Your task to perform on an android device: Show me popular videos on Youtube Image 0: 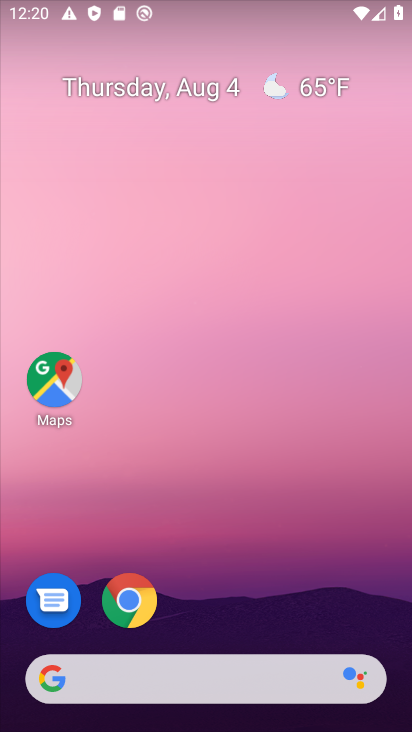
Step 0: drag from (219, 649) to (285, 28)
Your task to perform on an android device: Show me popular videos on Youtube Image 1: 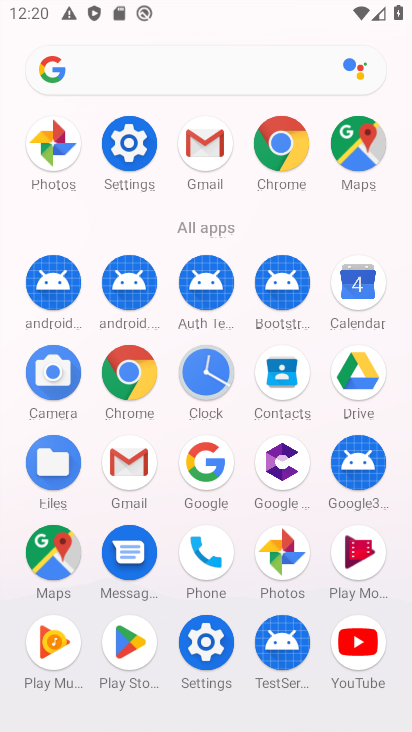
Step 1: click (372, 632)
Your task to perform on an android device: Show me popular videos on Youtube Image 2: 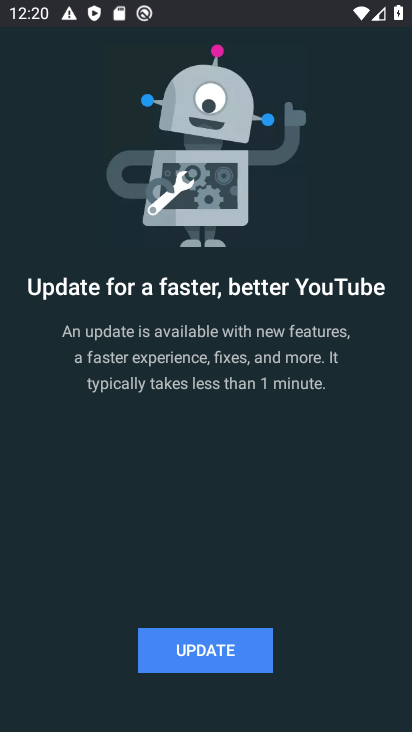
Step 2: click (185, 660)
Your task to perform on an android device: Show me popular videos on Youtube Image 3: 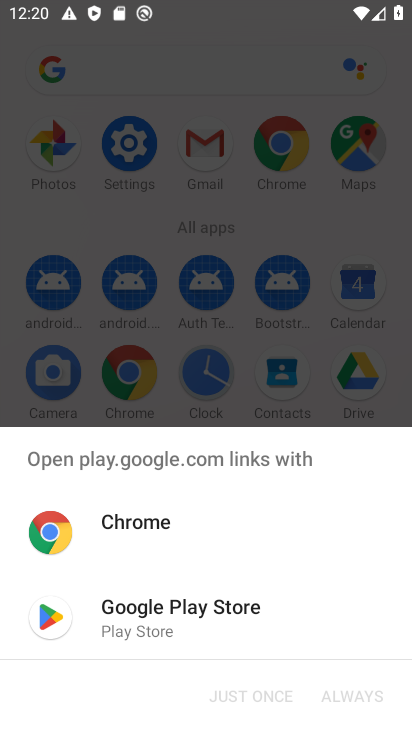
Step 3: click (186, 610)
Your task to perform on an android device: Show me popular videos on Youtube Image 4: 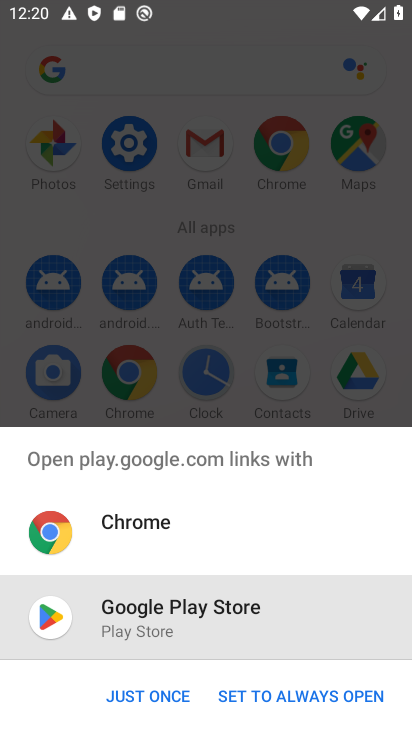
Step 4: click (272, 610)
Your task to perform on an android device: Show me popular videos on Youtube Image 5: 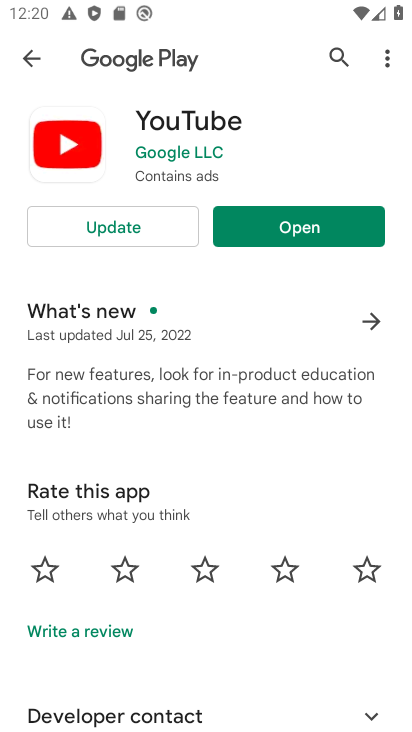
Step 5: click (151, 229)
Your task to perform on an android device: Show me popular videos on Youtube Image 6: 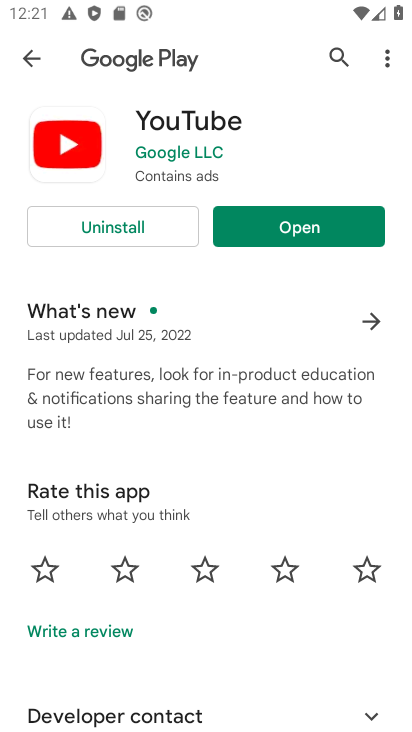
Step 6: click (318, 217)
Your task to perform on an android device: Show me popular videos on Youtube Image 7: 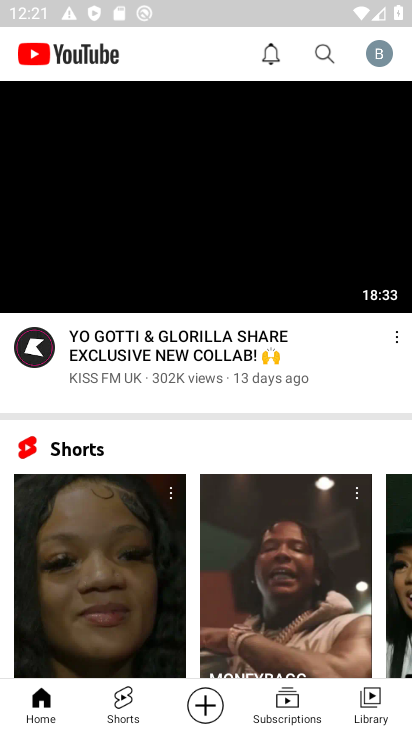
Step 7: drag from (138, 138) to (128, 294)
Your task to perform on an android device: Show me popular videos on Youtube Image 8: 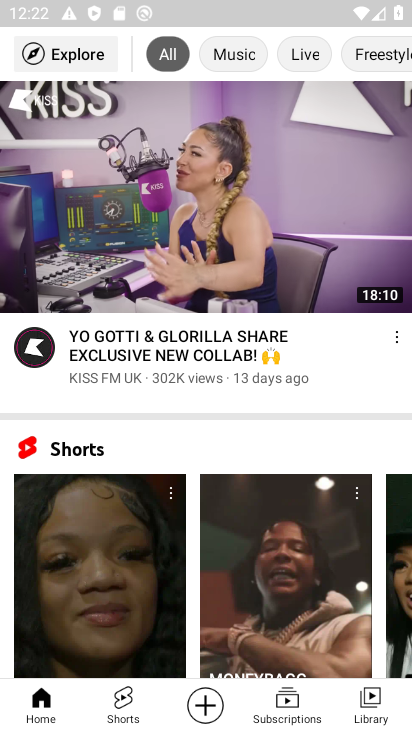
Step 8: click (90, 70)
Your task to perform on an android device: Show me popular videos on Youtube Image 9: 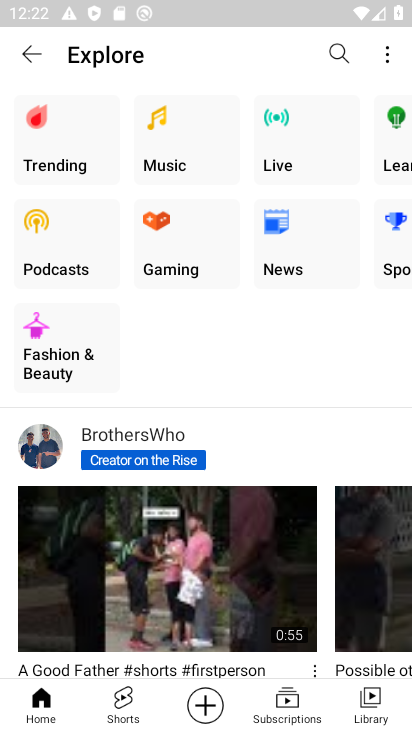
Step 9: click (28, 125)
Your task to perform on an android device: Show me popular videos on Youtube Image 10: 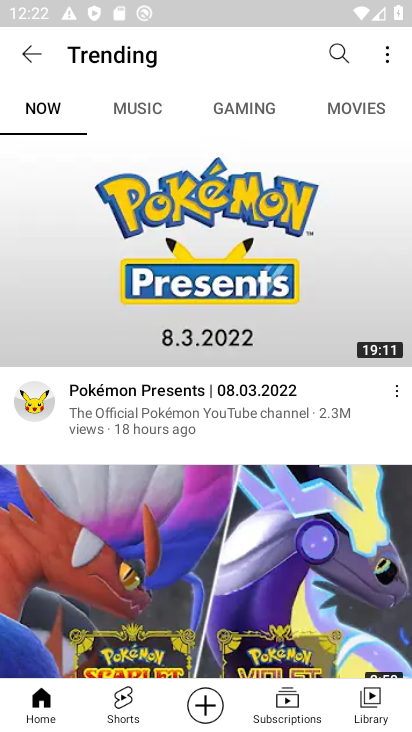
Step 10: task complete